Your task to perform on an android device: open app "Skype" (install if not already installed) and go to login screen Image 0: 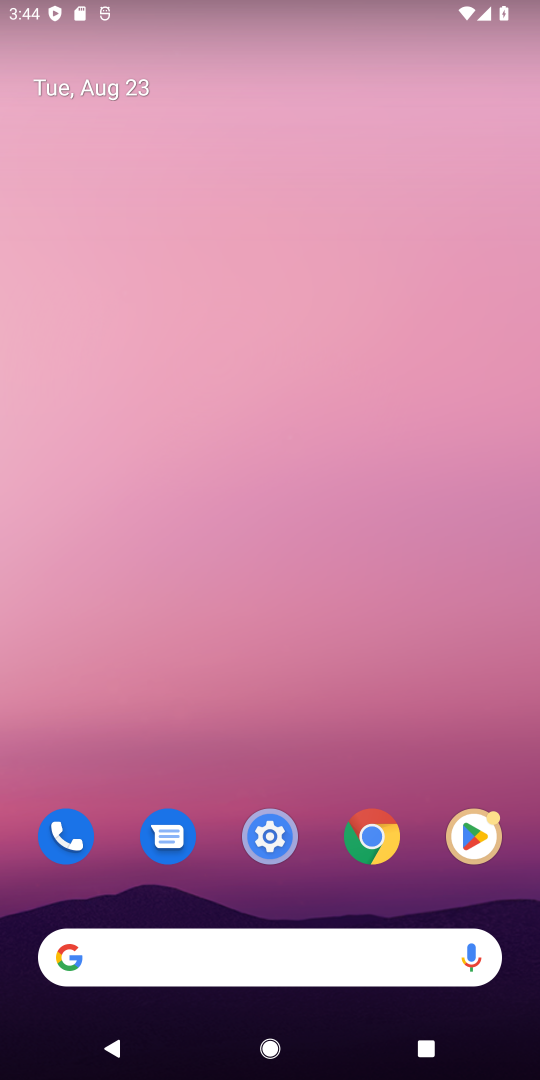
Step 0: click (473, 838)
Your task to perform on an android device: open app "Skype" (install if not already installed) and go to login screen Image 1: 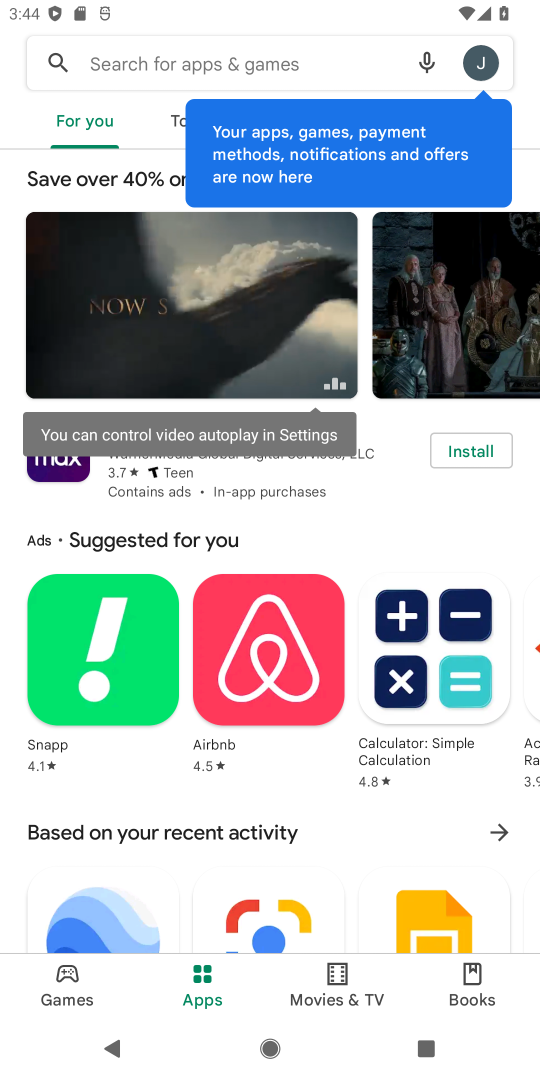
Step 1: click (67, 51)
Your task to perform on an android device: open app "Skype" (install if not already installed) and go to login screen Image 2: 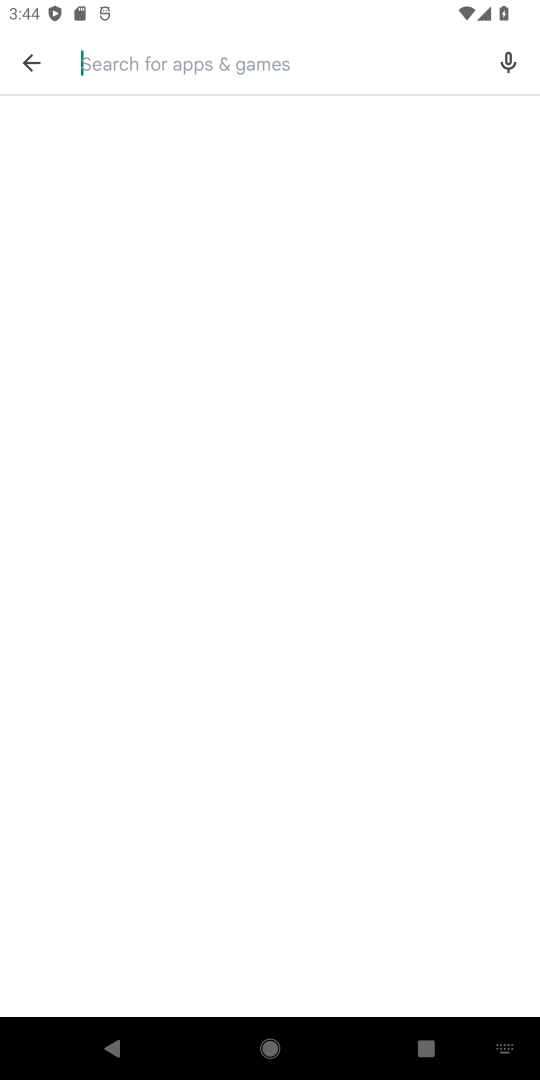
Step 2: type "Skype"
Your task to perform on an android device: open app "Skype" (install if not already installed) and go to login screen Image 3: 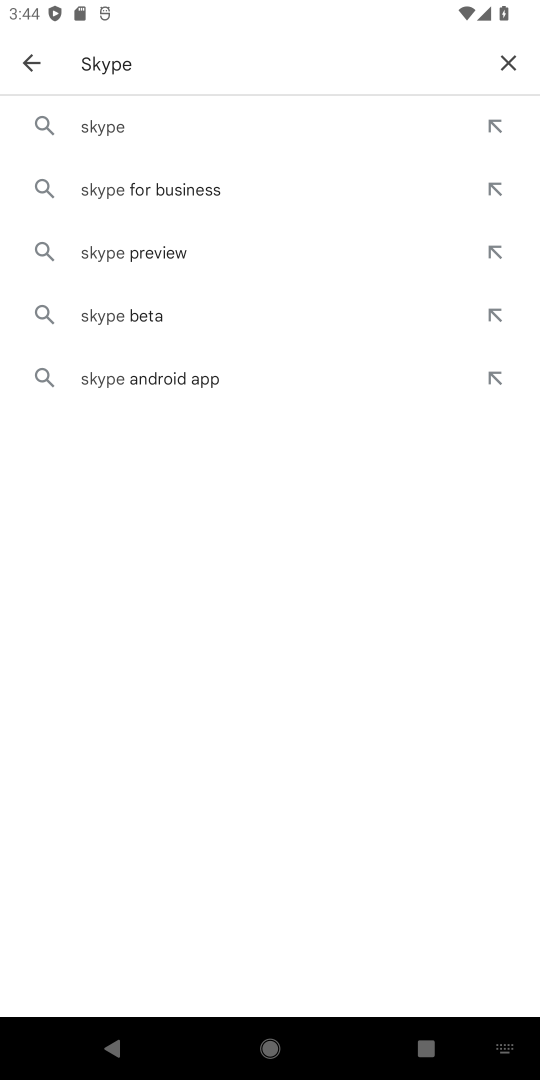
Step 3: click (99, 123)
Your task to perform on an android device: open app "Skype" (install if not already installed) and go to login screen Image 4: 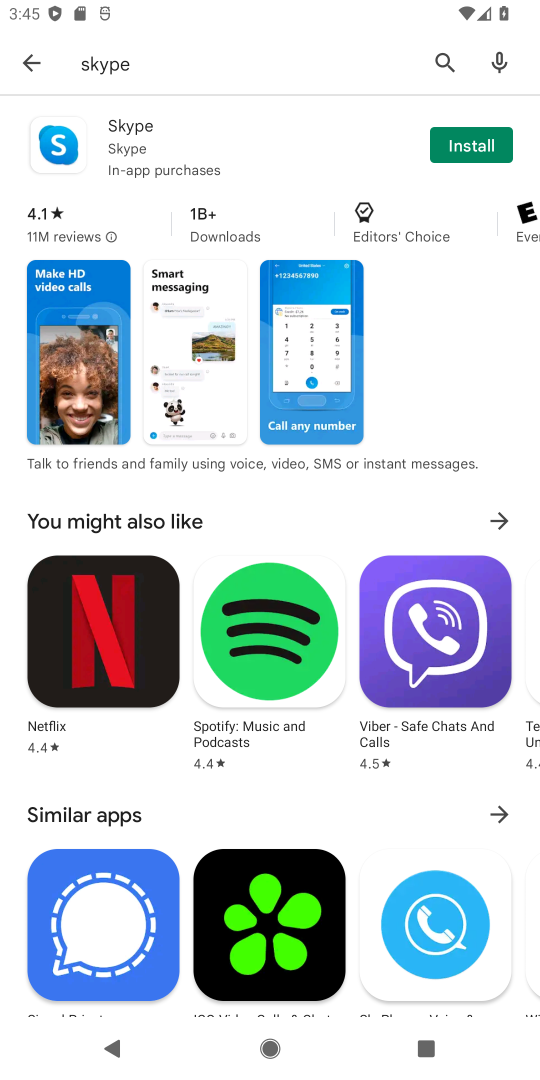
Step 4: click (460, 148)
Your task to perform on an android device: open app "Skype" (install if not already installed) and go to login screen Image 5: 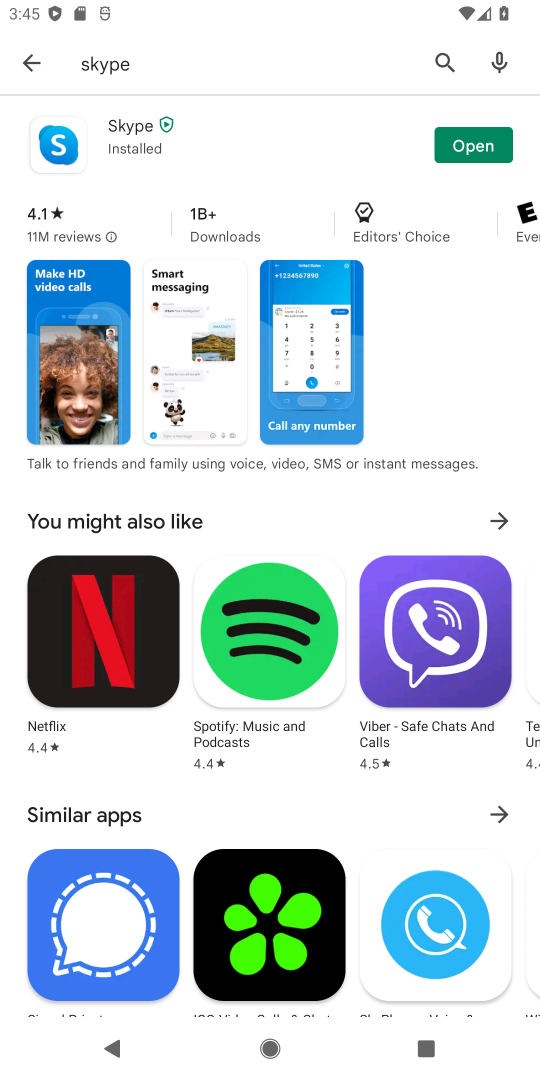
Step 5: click (479, 138)
Your task to perform on an android device: open app "Skype" (install if not already installed) and go to login screen Image 6: 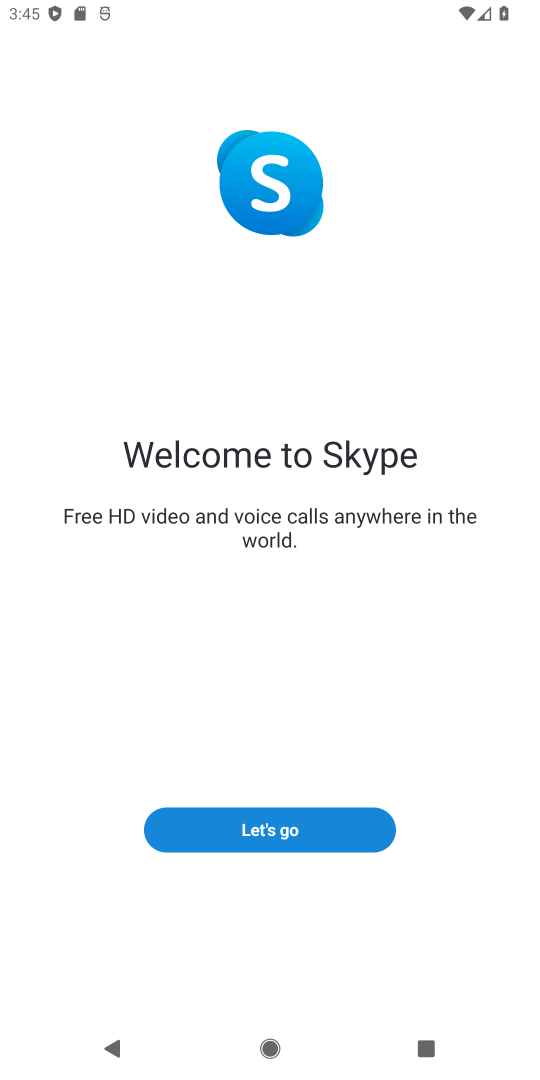
Step 6: click (272, 825)
Your task to perform on an android device: open app "Skype" (install if not already installed) and go to login screen Image 7: 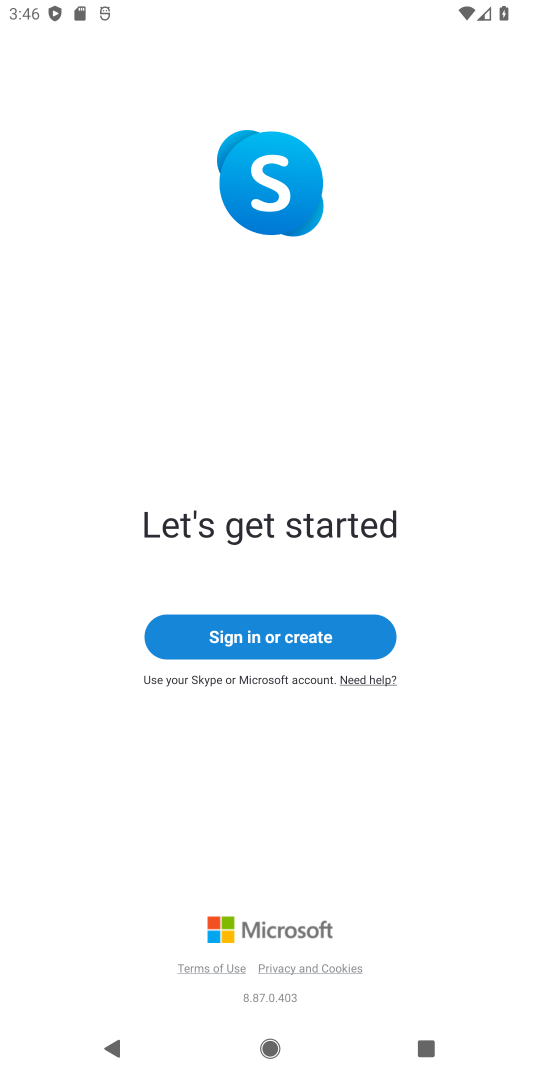
Step 7: click (275, 642)
Your task to perform on an android device: open app "Skype" (install if not already installed) and go to login screen Image 8: 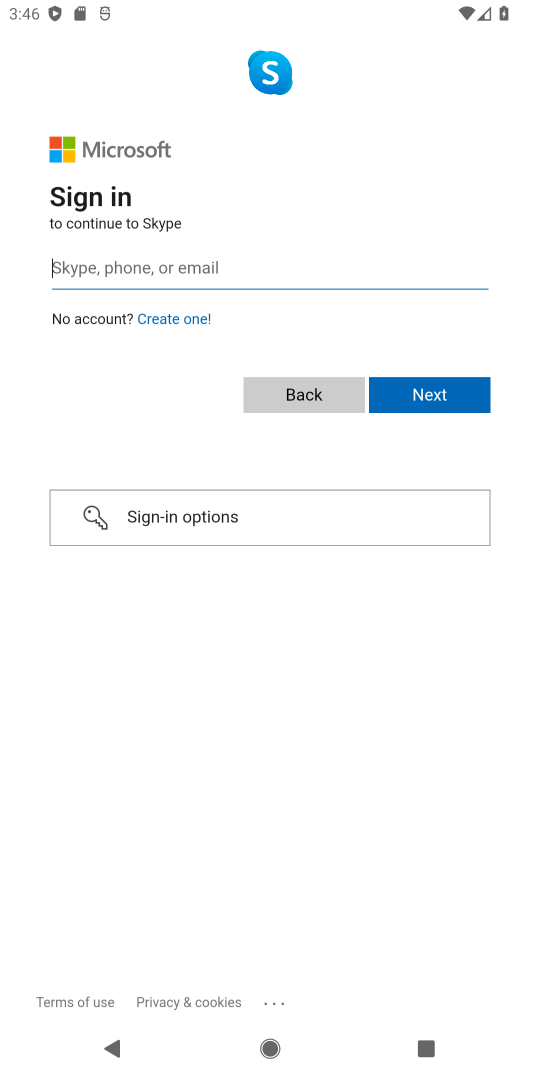
Step 8: task complete